Your task to perform on an android device: turn off picture-in-picture Image 0: 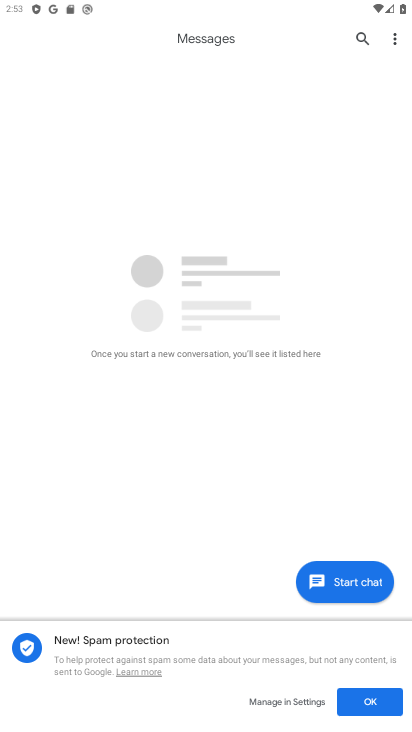
Step 0: press home button
Your task to perform on an android device: turn off picture-in-picture Image 1: 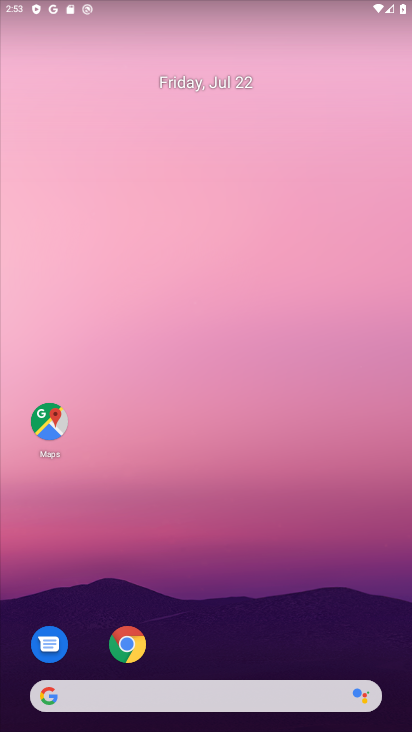
Step 1: drag from (263, 584) to (259, 264)
Your task to perform on an android device: turn off picture-in-picture Image 2: 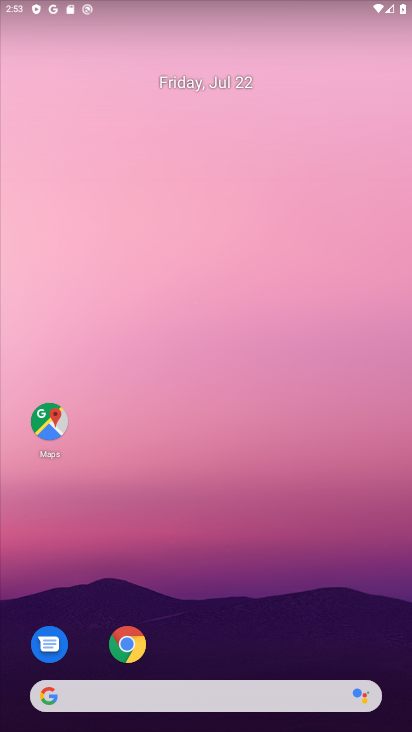
Step 2: drag from (262, 417) to (240, 154)
Your task to perform on an android device: turn off picture-in-picture Image 3: 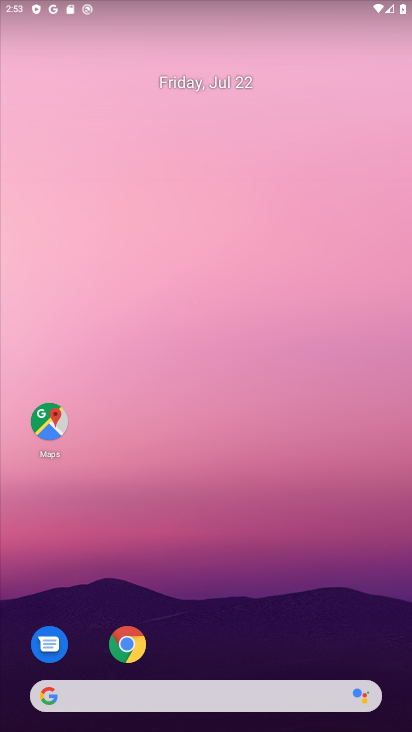
Step 3: drag from (265, 530) to (273, 193)
Your task to perform on an android device: turn off picture-in-picture Image 4: 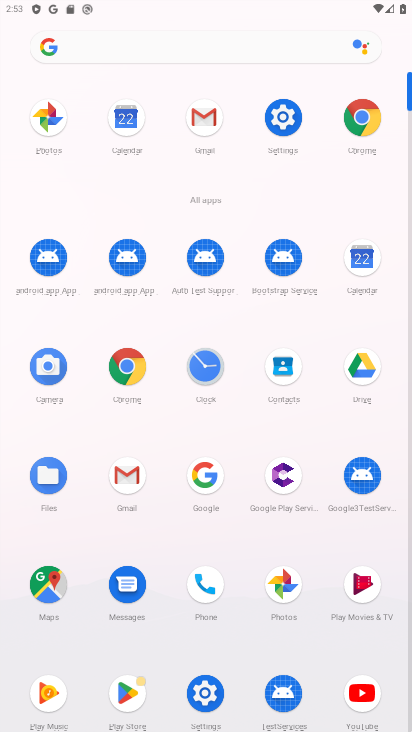
Step 4: click (285, 596)
Your task to perform on an android device: turn off picture-in-picture Image 5: 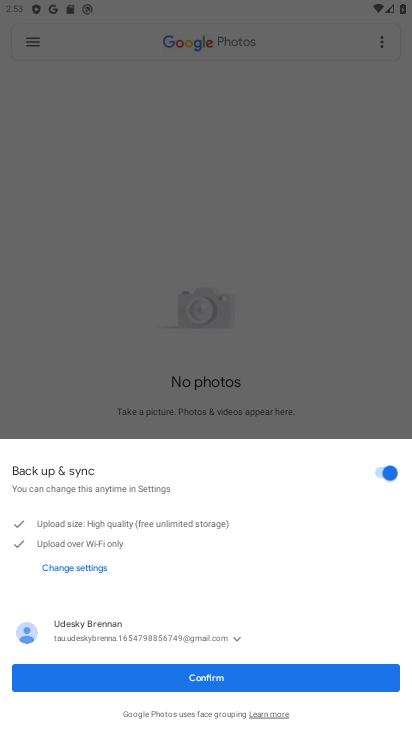
Step 5: task complete